Your task to perform on an android device: Open Google Image 0: 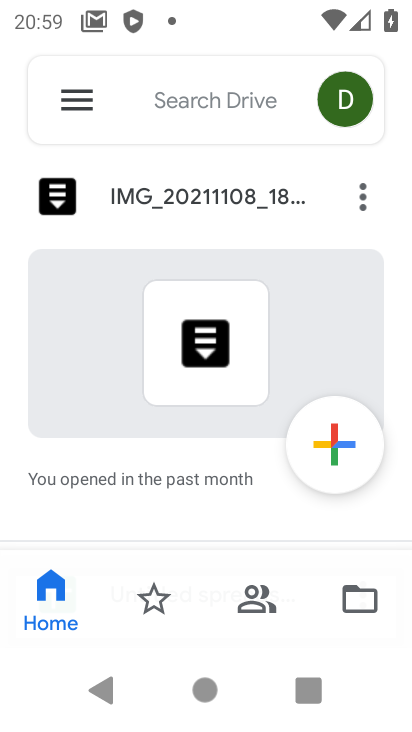
Step 0: press home button
Your task to perform on an android device: Open Google Image 1: 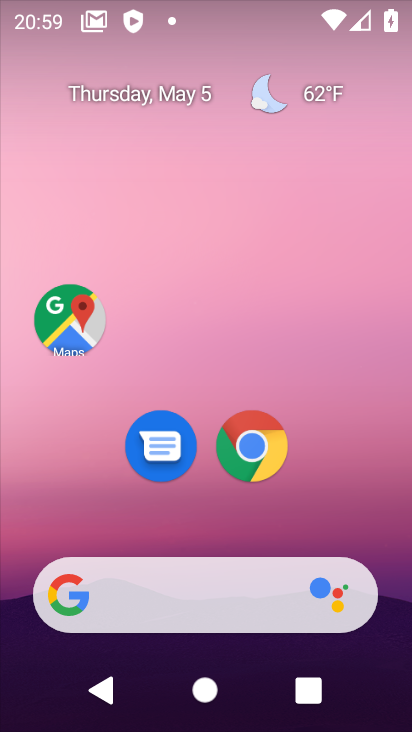
Step 1: drag from (287, 613) to (176, 198)
Your task to perform on an android device: Open Google Image 2: 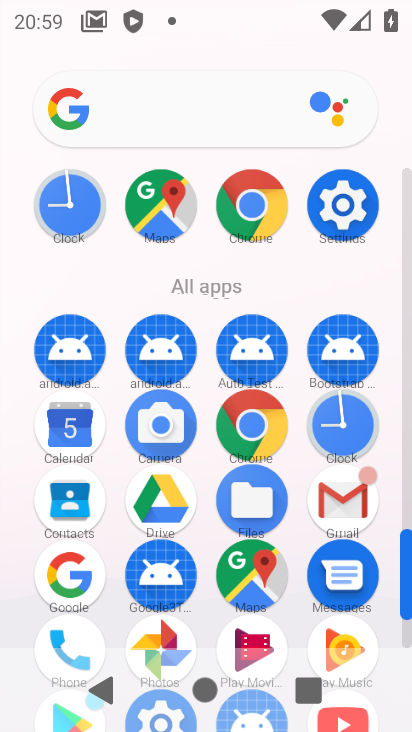
Step 2: click (61, 95)
Your task to perform on an android device: Open Google Image 3: 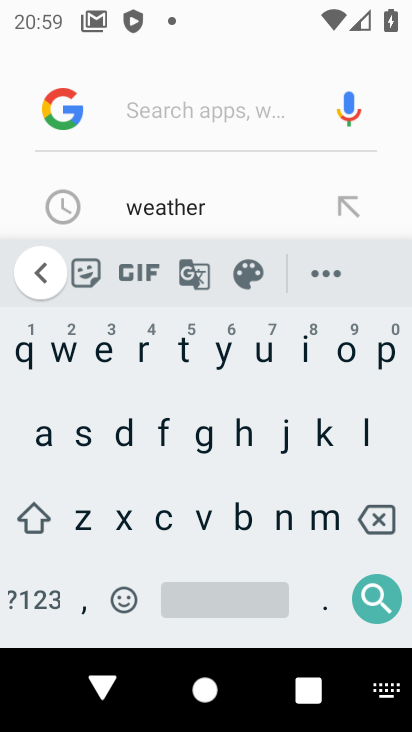
Step 3: click (68, 116)
Your task to perform on an android device: Open Google Image 4: 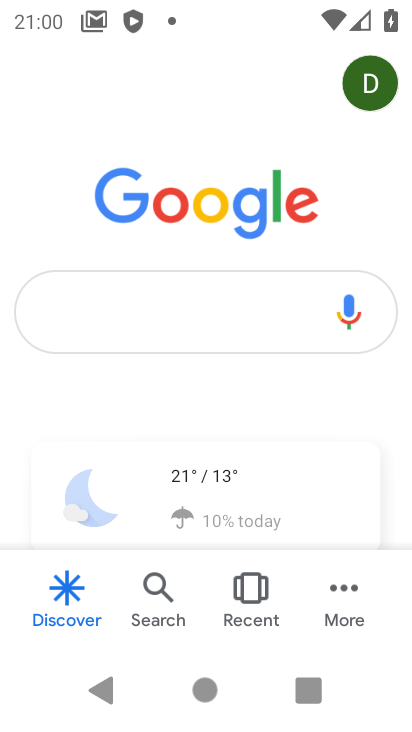
Step 4: task complete